Your task to perform on an android device: change keyboard looks Image 0: 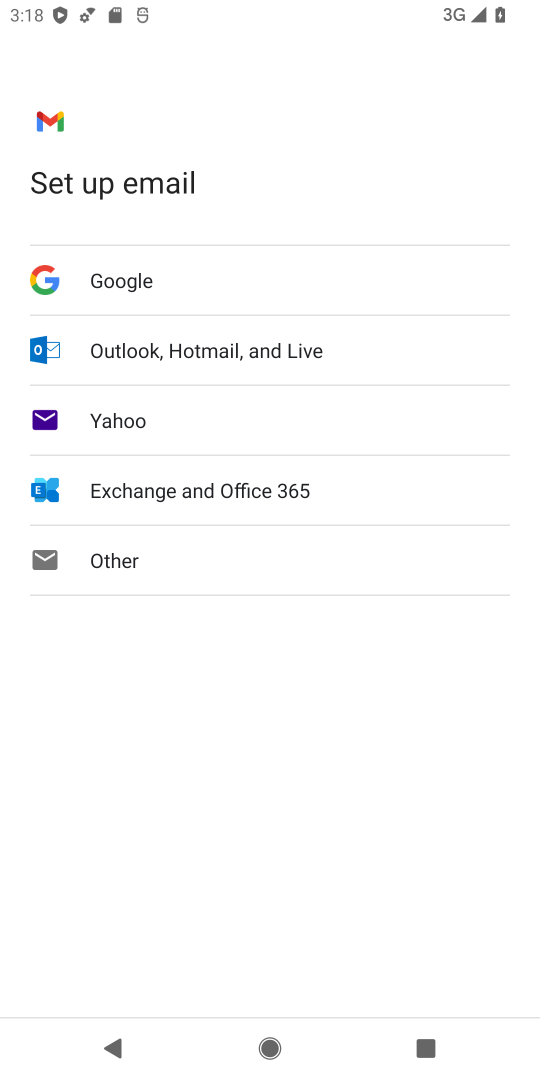
Step 0: press home button
Your task to perform on an android device: change keyboard looks Image 1: 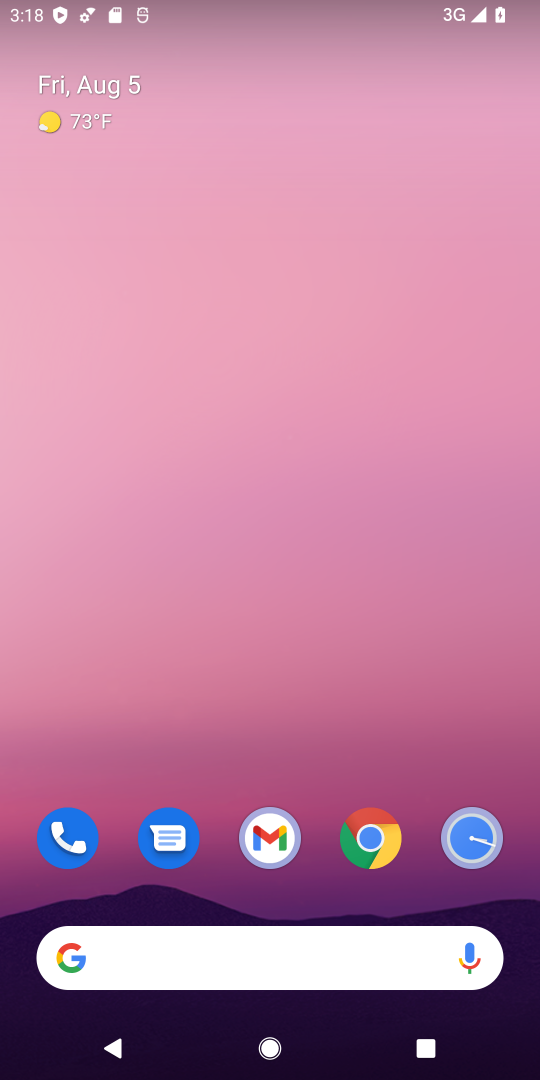
Step 1: drag from (164, 956) to (304, 308)
Your task to perform on an android device: change keyboard looks Image 2: 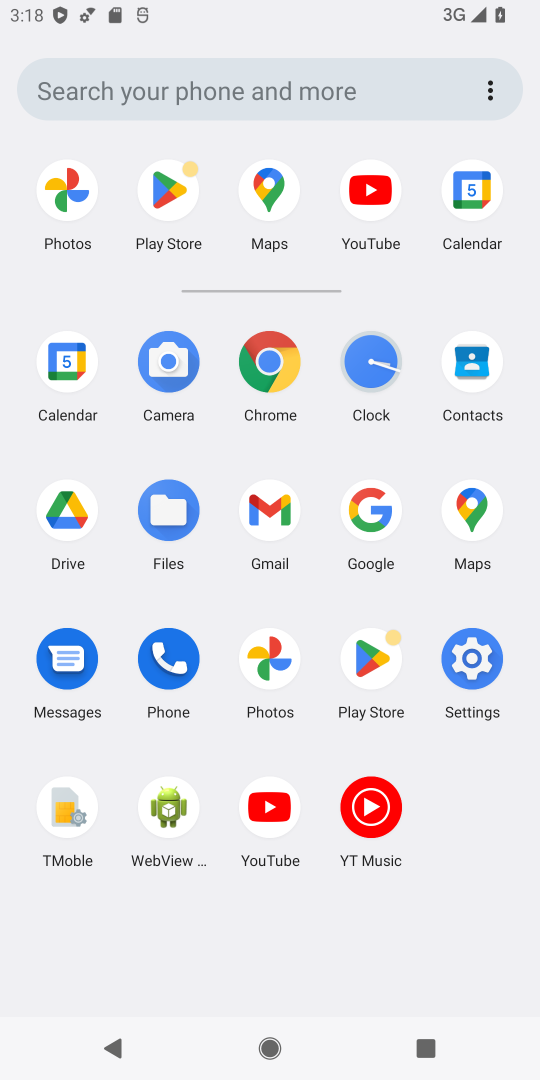
Step 2: click (465, 663)
Your task to perform on an android device: change keyboard looks Image 3: 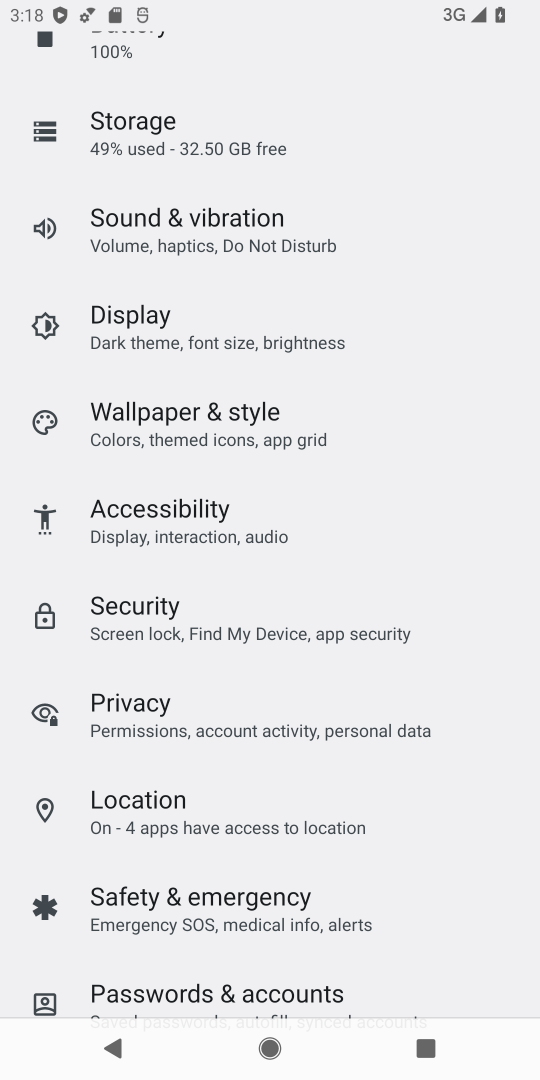
Step 3: drag from (216, 892) to (268, 634)
Your task to perform on an android device: change keyboard looks Image 4: 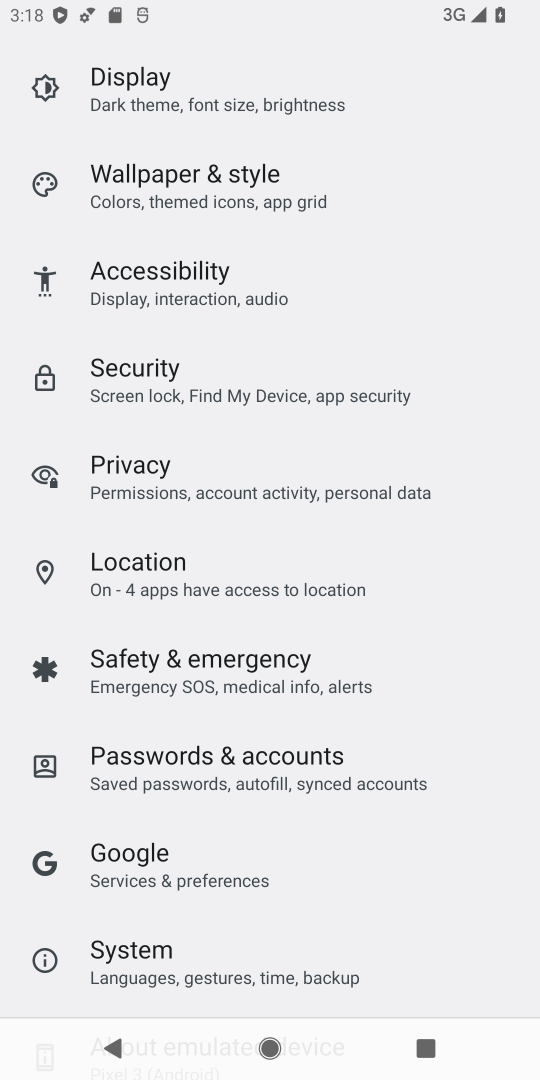
Step 4: click (191, 958)
Your task to perform on an android device: change keyboard looks Image 5: 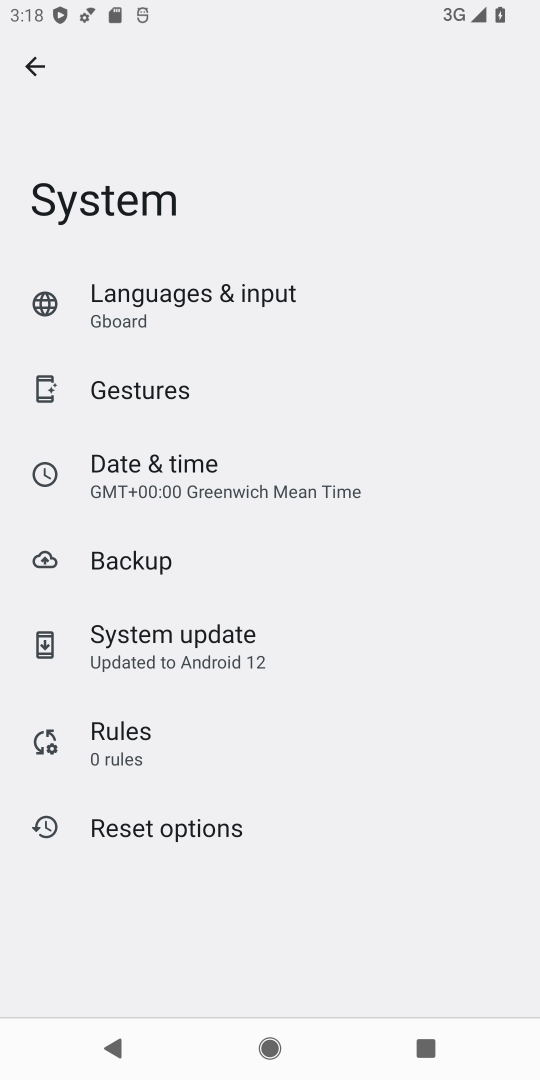
Step 5: click (164, 312)
Your task to perform on an android device: change keyboard looks Image 6: 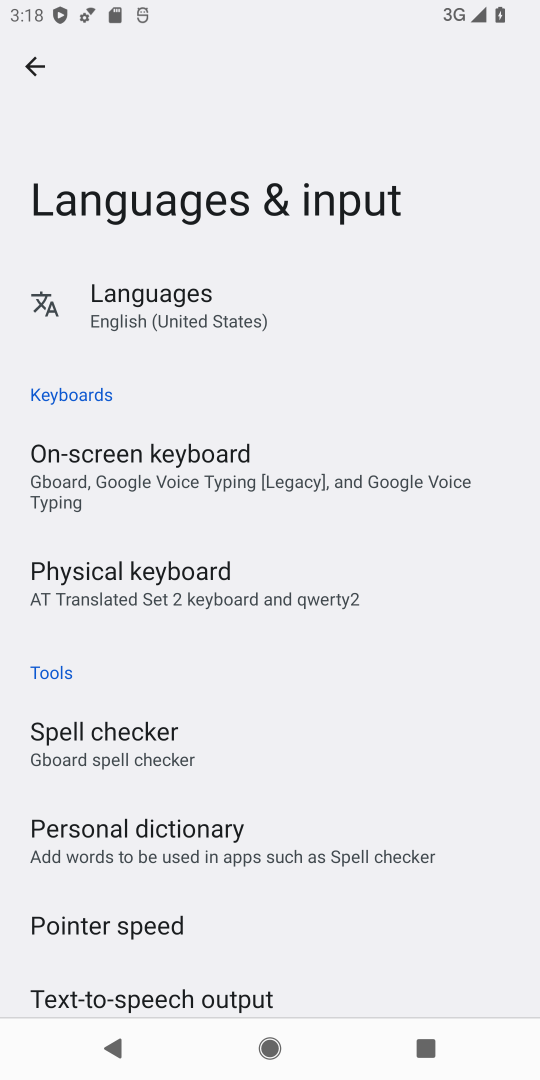
Step 6: click (49, 74)
Your task to perform on an android device: change keyboard looks Image 7: 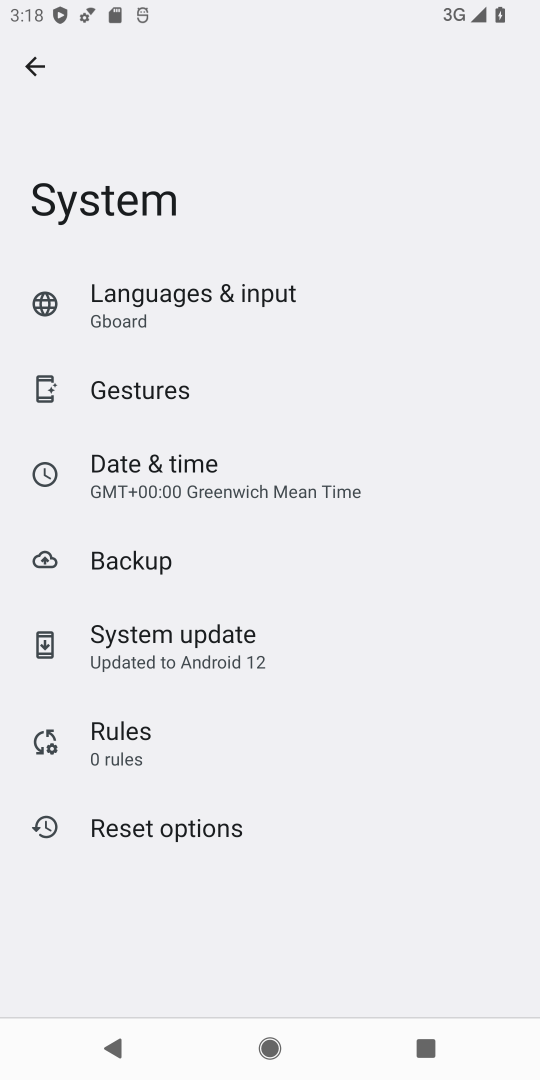
Step 7: click (49, 78)
Your task to perform on an android device: change keyboard looks Image 8: 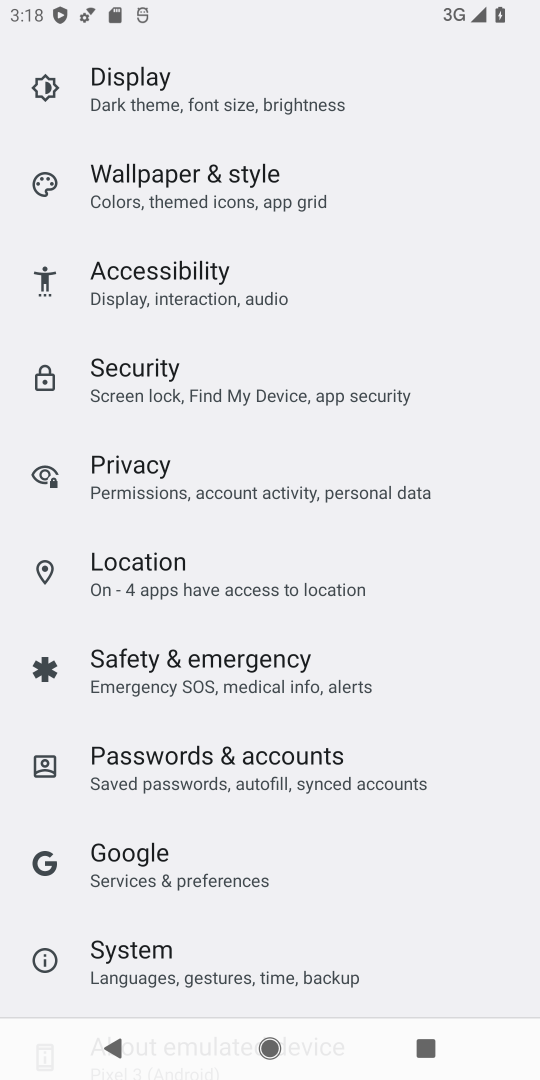
Step 8: drag from (216, 834) to (293, 598)
Your task to perform on an android device: change keyboard looks Image 9: 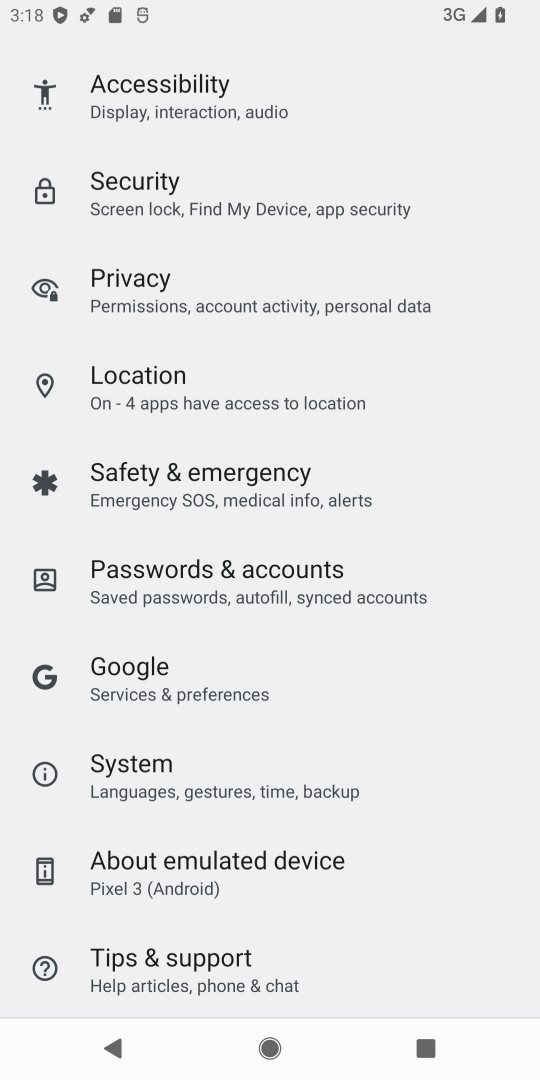
Step 9: click (245, 764)
Your task to perform on an android device: change keyboard looks Image 10: 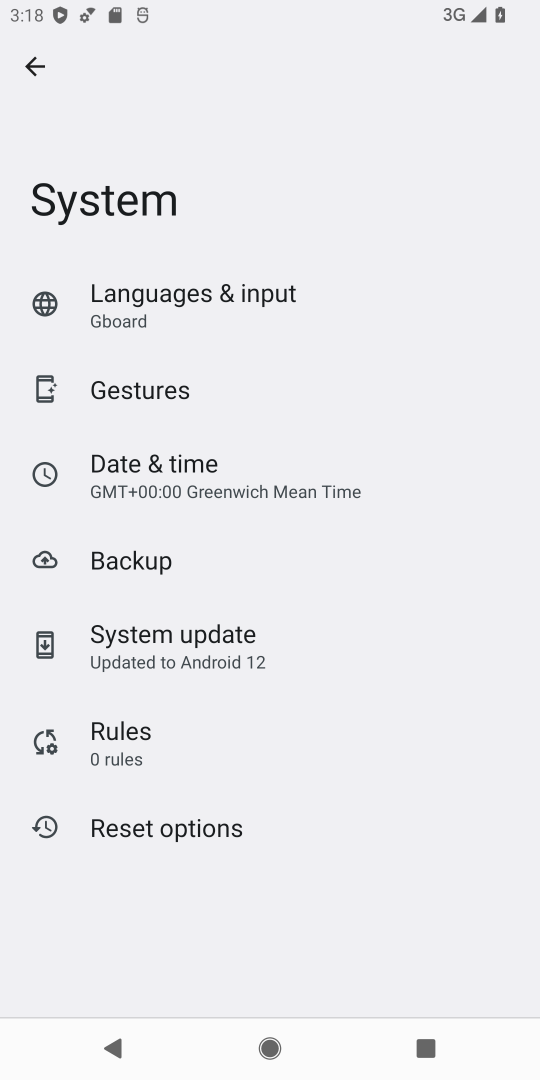
Step 10: click (265, 302)
Your task to perform on an android device: change keyboard looks Image 11: 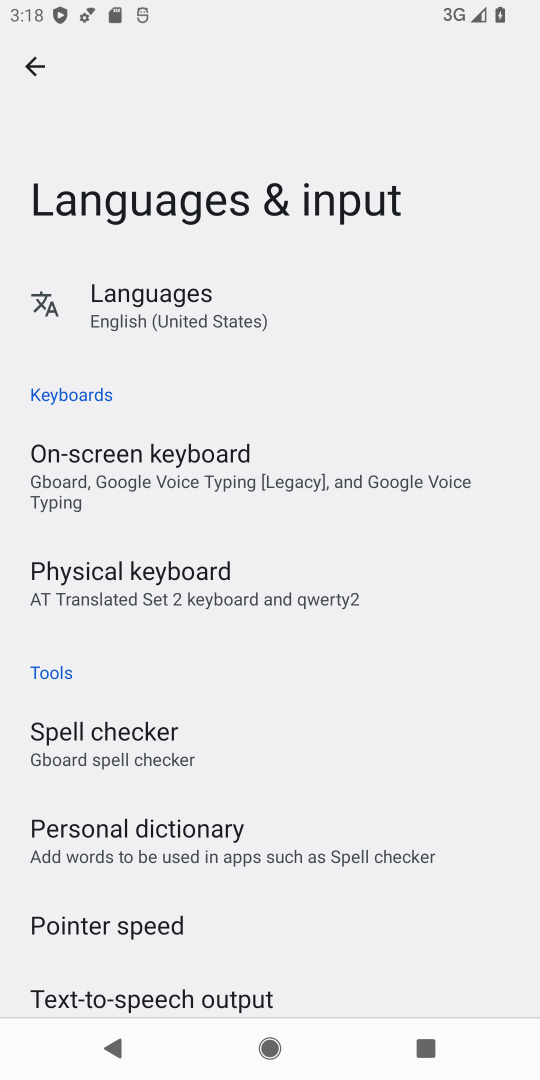
Step 11: click (140, 461)
Your task to perform on an android device: change keyboard looks Image 12: 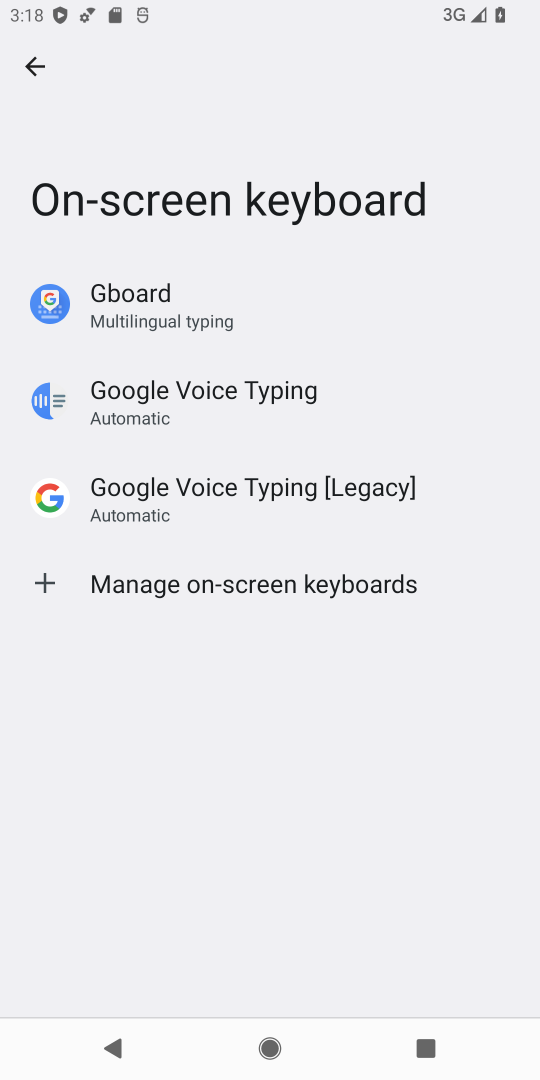
Step 12: click (70, 302)
Your task to perform on an android device: change keyboard looks Image 13: 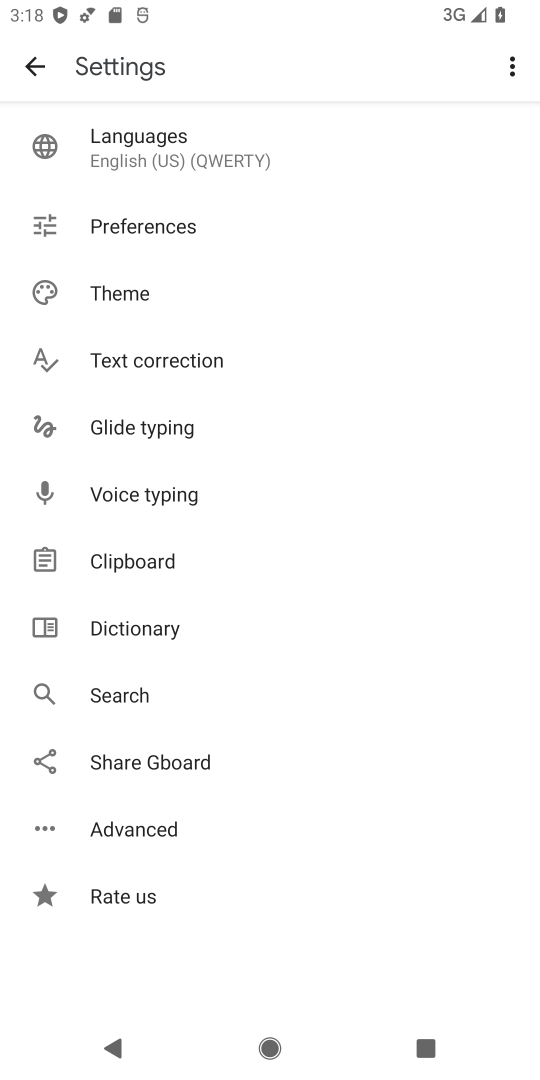
Step 13: click (100, 288)
Your task to perform on an android device: change keyboard looks Image 14: 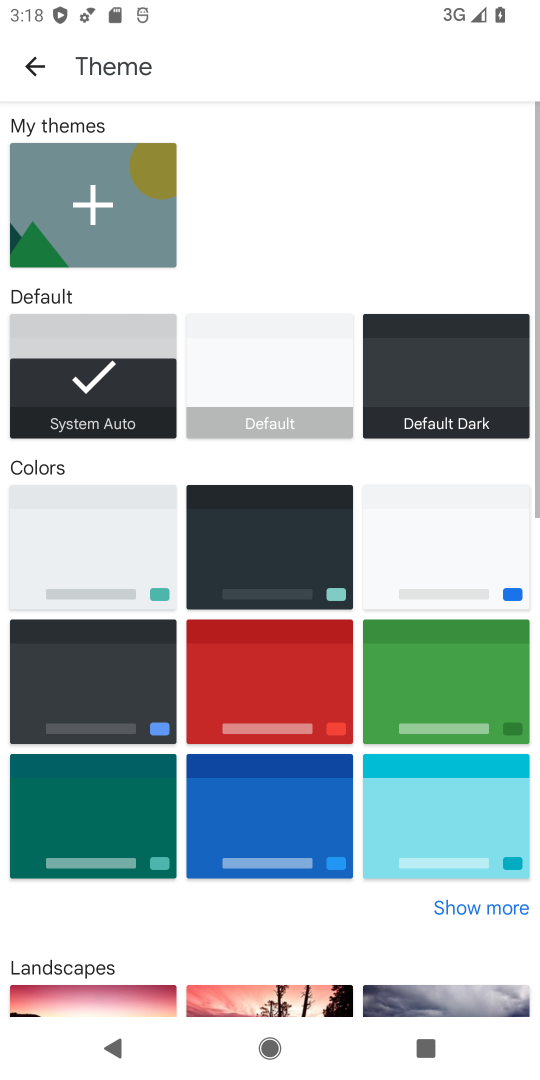
Step 14: click (211, 686)
Your task to perform on an android device: change keyboard looks Image 15: 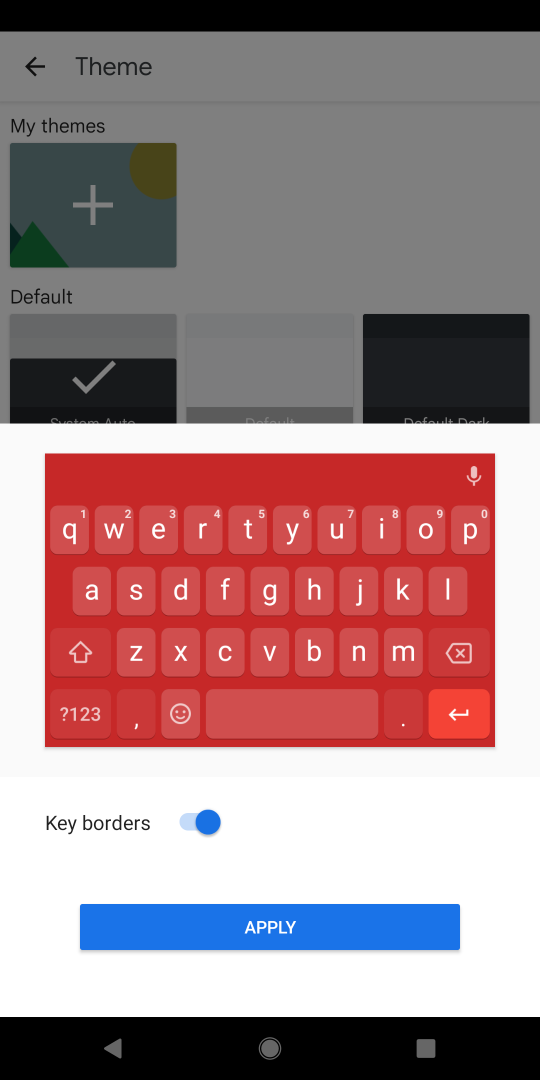
Step 15: click (280, 941)
Your task to perform on an android device: change keyboard looks Image 16: 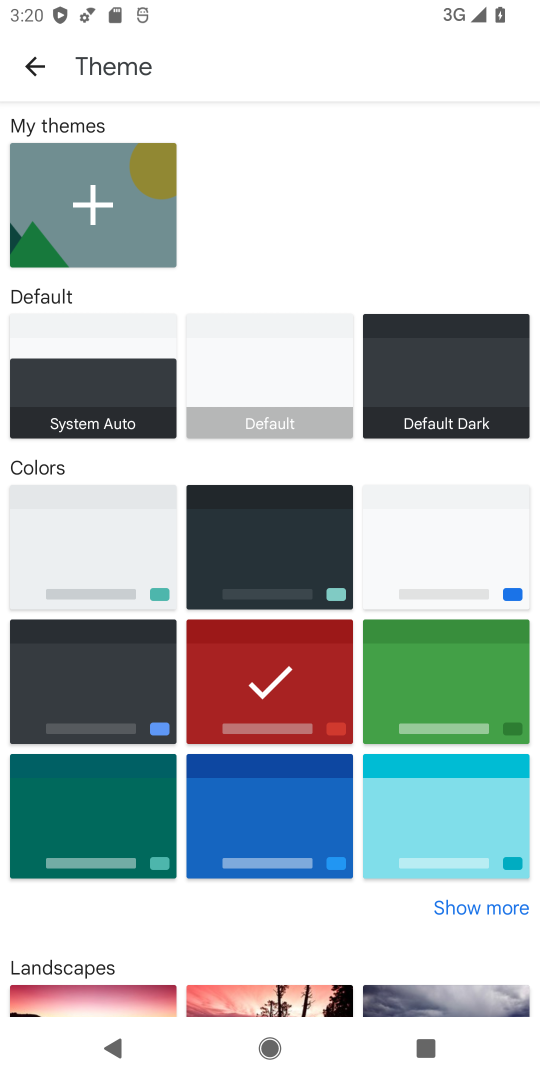
Step 16: task complete